Your task to perform on an android device: Open notification settings Image 0: 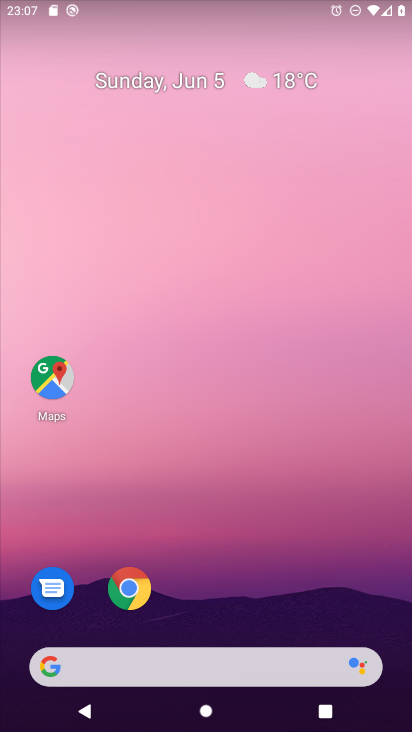
Step 0: drag from (352, 601) to (357, 138)
Your task to perform on an android device: Open notification settings Image 1: 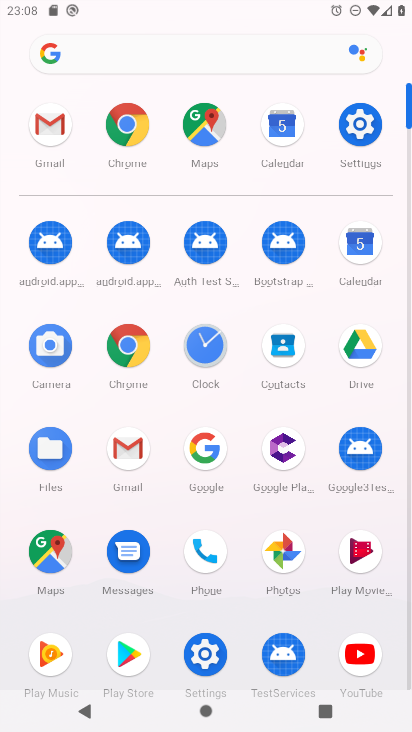
Step 1: click (358, 146)
Your task to perform on an android device: Open notification settings Image 2: 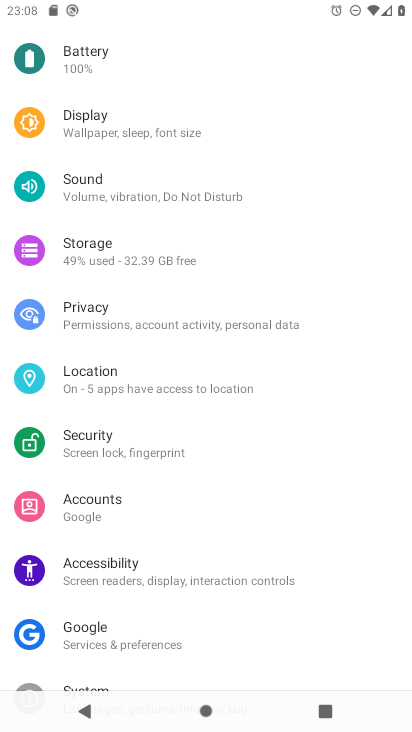
Step 2: drag from (337, 616) to (333, 489)
Your task to perform on an android device: Open notification settings Image 3: 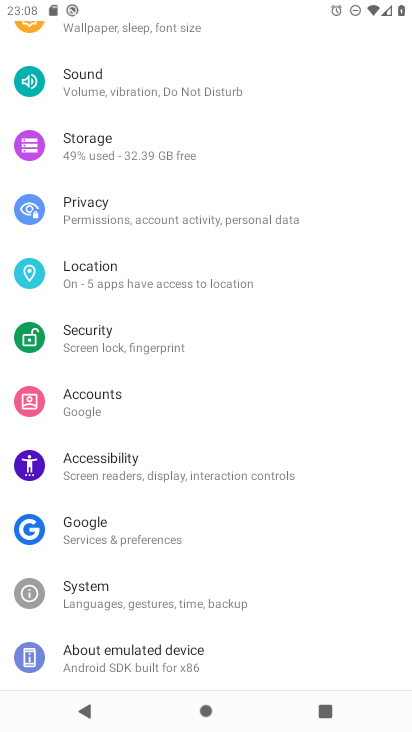
Step 3: drag from (333, 373) to (333, 468)
Your task to perform on an android device: Open notification settings Image 4: 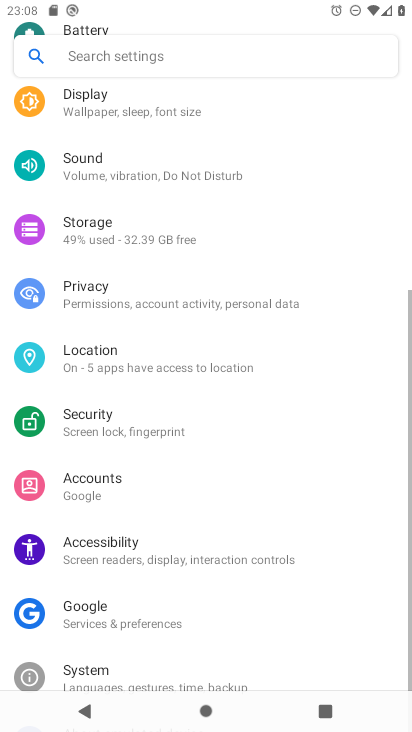
Step 4: drag from (347, 317) to (352, 424)
Your task to perform on an android device: Open notification settings Image 5: 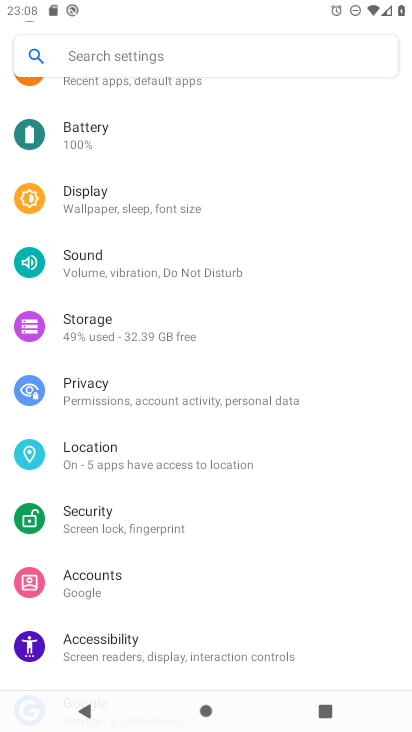
Step 5: drag from (348, 301) to (352, 442)
Your task to perform on an android device: Open notification settings Image 6: 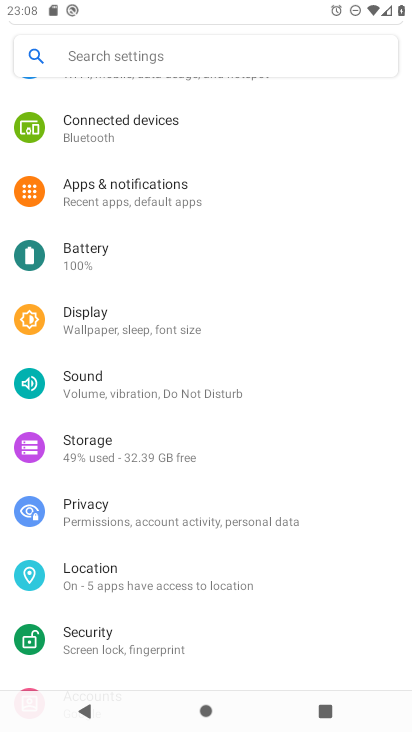
Step 6: drag from (355, 382) to (356, 487)
Your task to perform on an android device: Open notification settings Image 7: 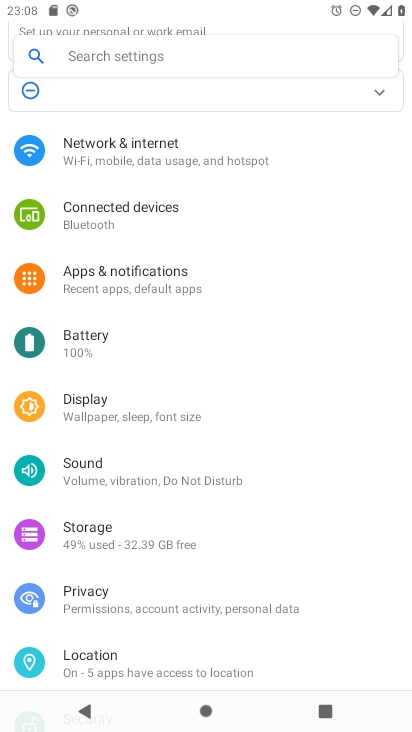
Step 7: drag from (342, 253) to (341, 401)
Your task to perform on an android device: Open notification settings Image 8: 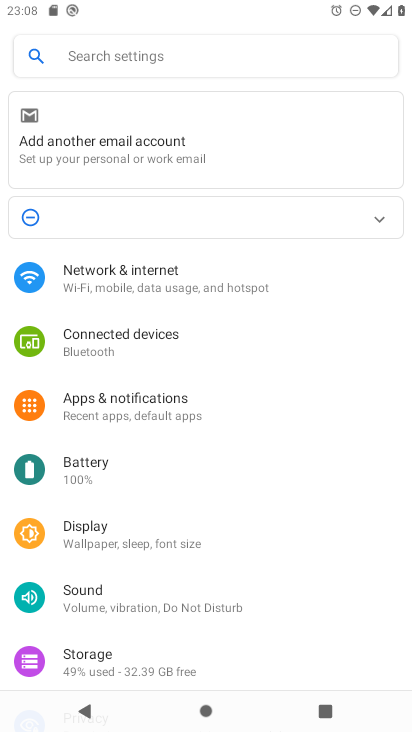
Step 8: click (162, 414)
Your task to perform on an android device: Open notification settings Image 9: 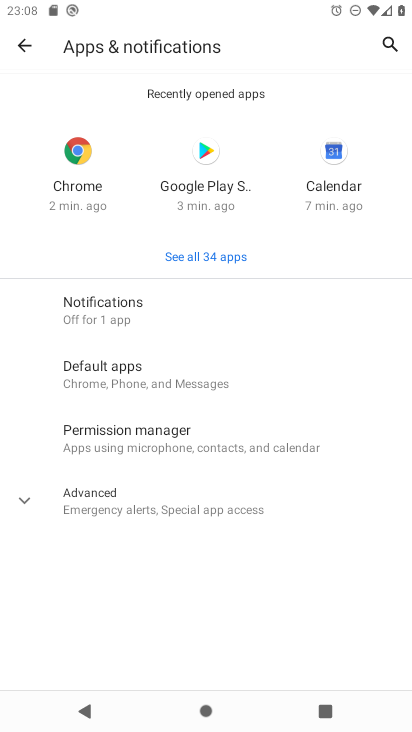
Step 9: drag from (324, 555) to (329, 395)
Your task to perform on an android device: Open notification settings Image 10: 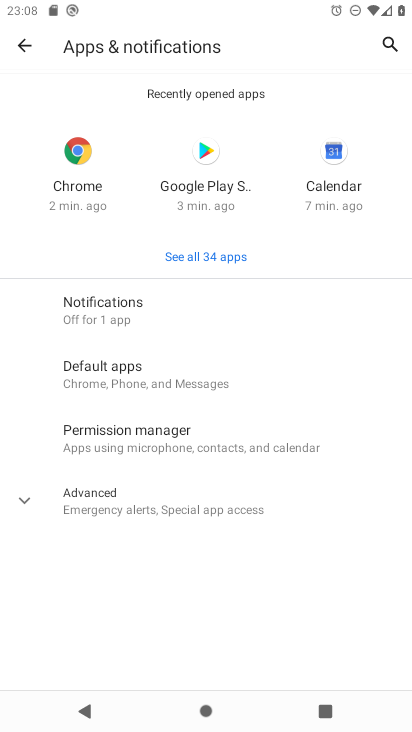
Step 10: click (174, 311)
Your task to perform on an android device: Open notification settings Image 11: 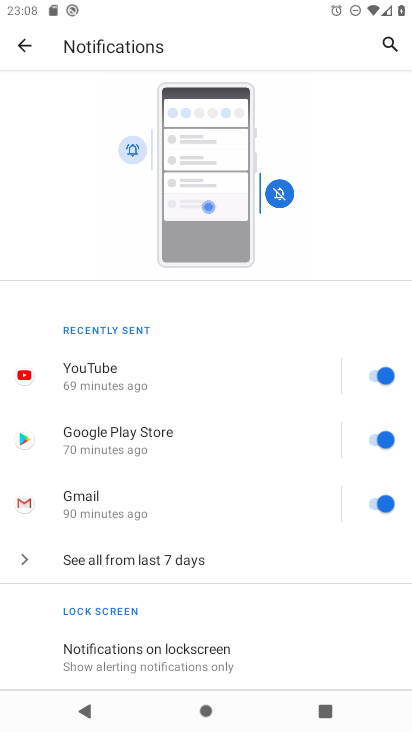
Step 11: task complete